Your task to perform on an android device: turn off translation in the chrome app Image 0: 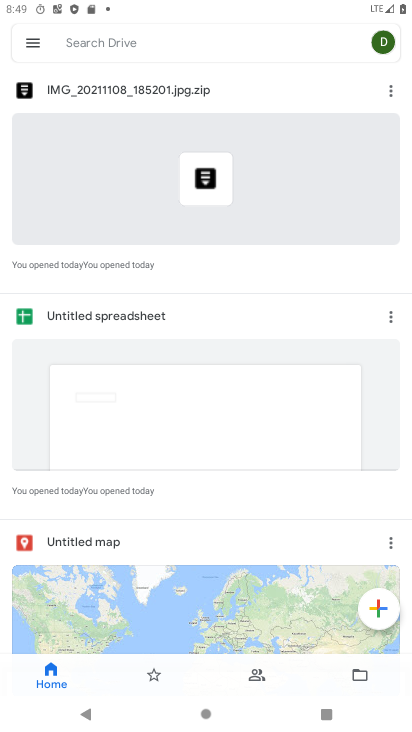
Step 0: press home button
Your task to perform on an android device: turn off translation in the chrome app Image 1: 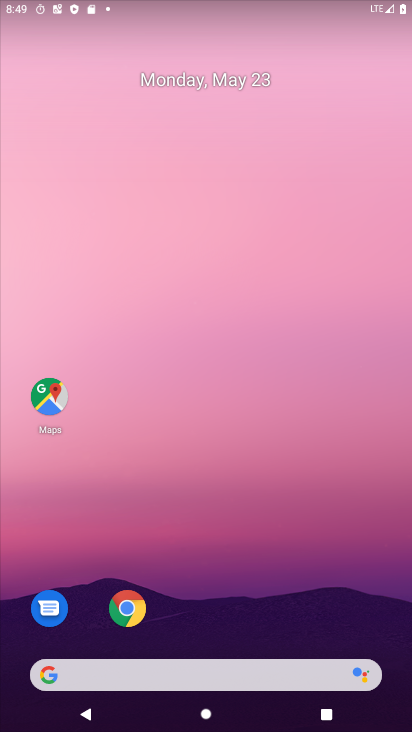
Step 1: click (128, 619)
Your task to perform on an android device: turn off translation in the chrome app Image 2: 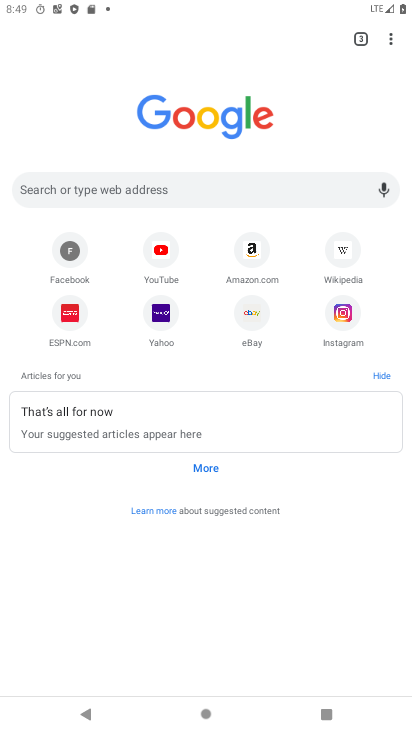
Step 2: drag from (388, 35) to (275, 327)
Your task to perform on an android device: turn off translation in the chrome app Image 3: 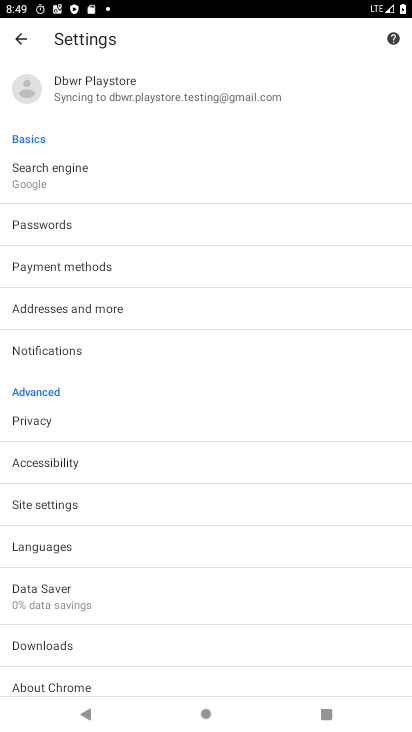
Step 3: click (266, 327)
Your task to perform on an android device: turn off translation in the chrome app Image 4: 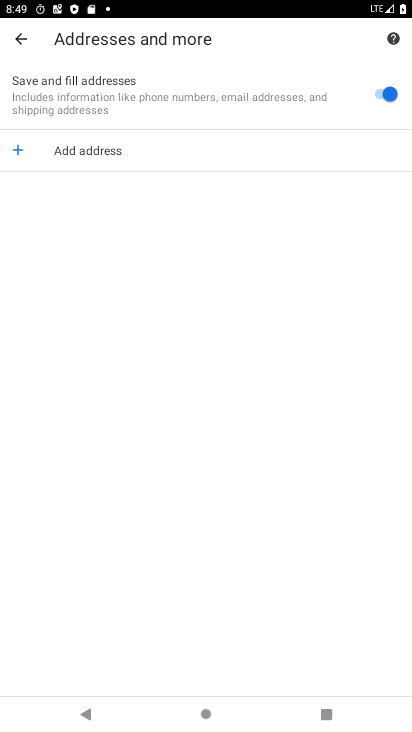
Step 4: click (14, 52)
Your task to perform on an android device: turn off translation in the chrome app Image 5: 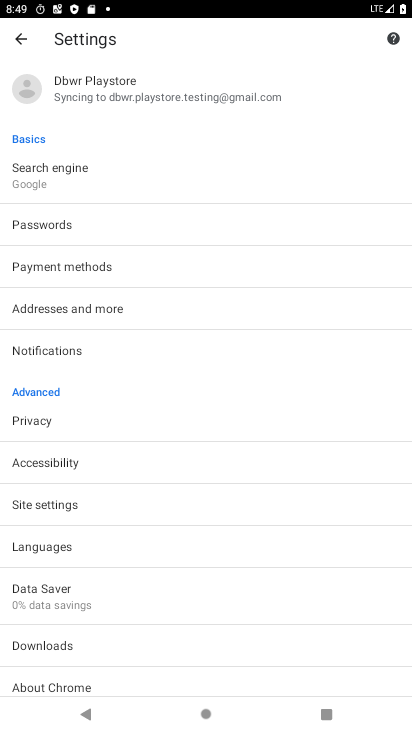
Step 5: click (60, 544)
Your task to perform on an android device: turn off translation in the chrome app Image 6: 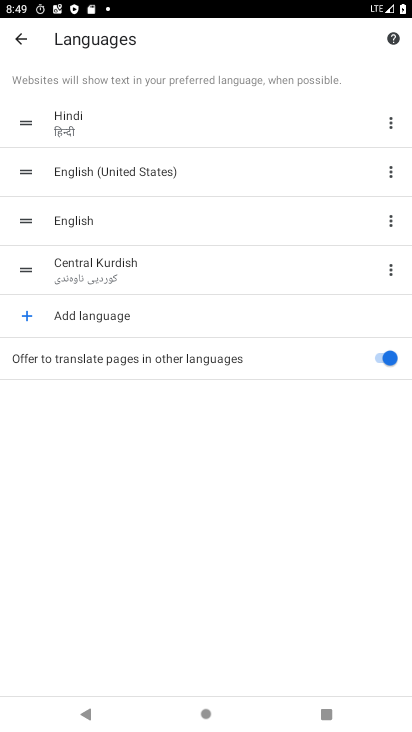
Step 6: click (381, 356)
Your task to perform on an android device: turn off translation in the chrome app Image 7: 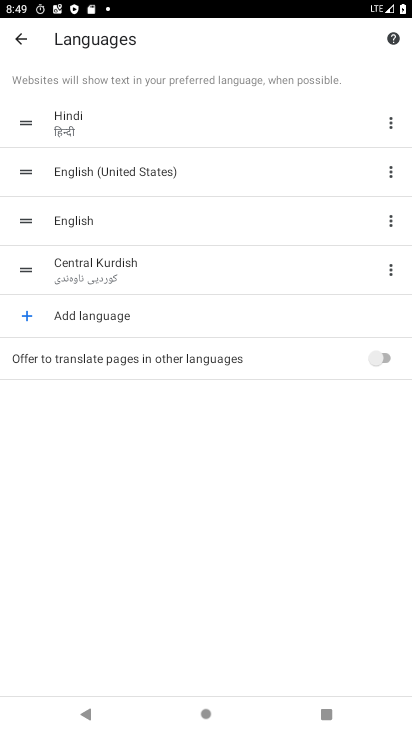
Step 7: task complete